Your task to perform on an android device: create a new album in the google photos Image 0: 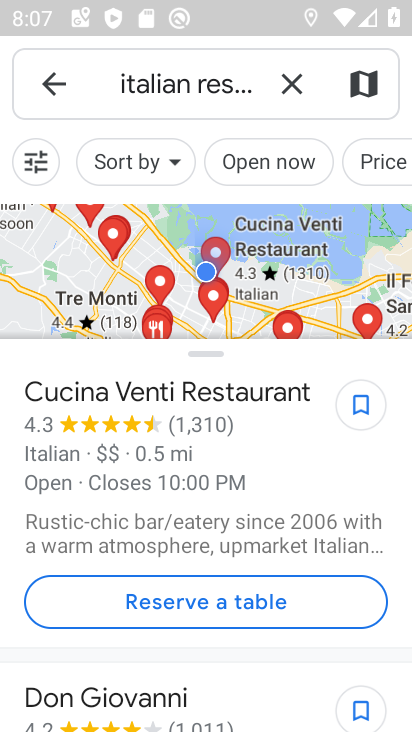
Step 0: press home button
Your task to perform on an android device: create a new album in the google photos Image 1: 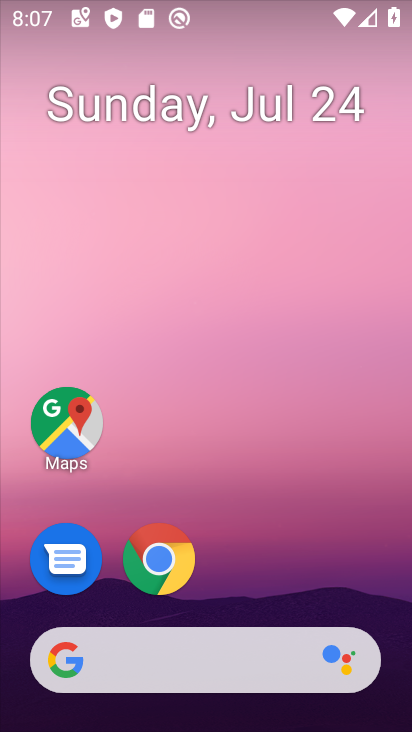
Step 1: drag from (357, 571) to (351, 127)
Your task to perform on an android device: create a new album in the google photos Image 2: 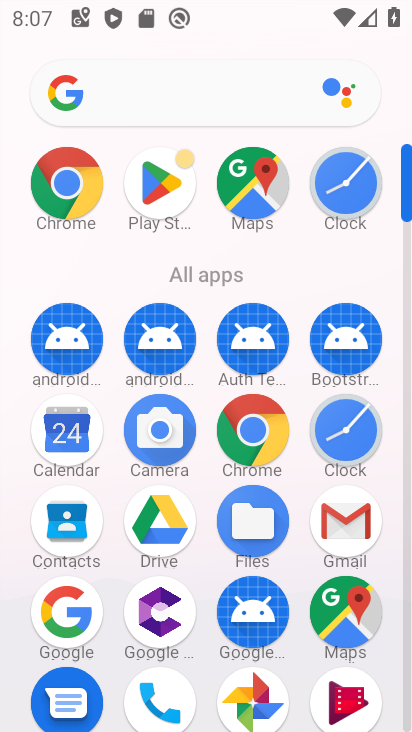
Step 2: drag from (403, 517) to (399, 415)
Your task to perform on an android device: create a new album in the google photos Image 3: 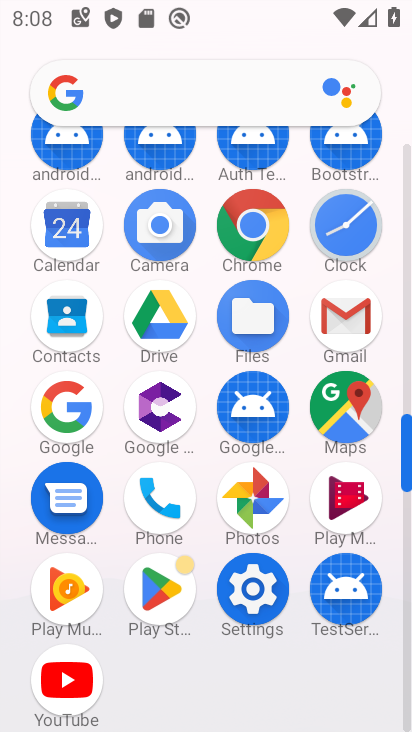
Step 3: click (251, 498)
Your task to perform on an android device: create a new album in the google photos Image 4: 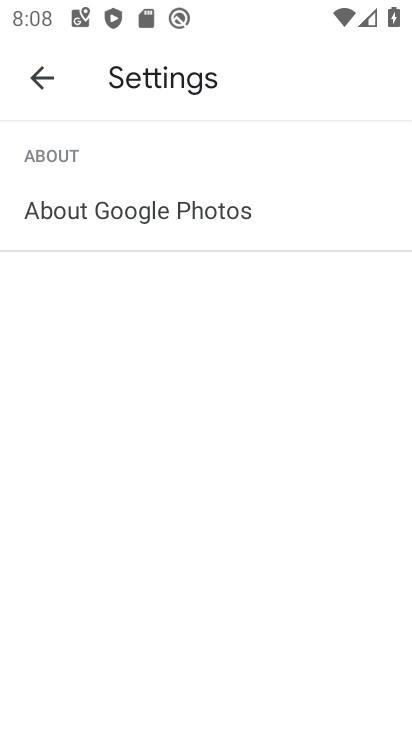
Step 4: press back button
Your task to perform on an android device: create a new album in the google photos Image 5: 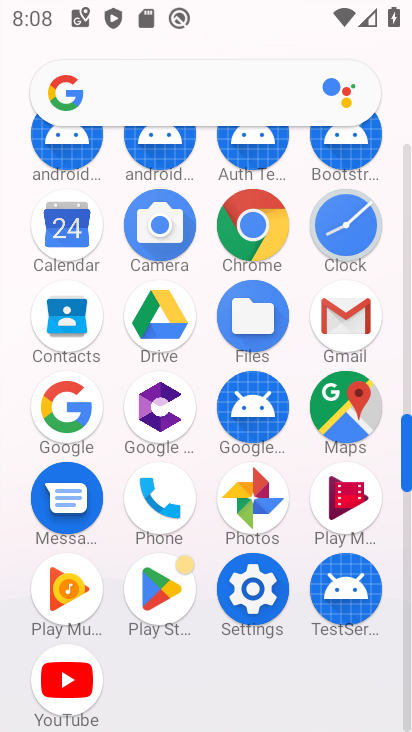
Step 5: click (257, 497)
Your task to perform on an android device: create a new album in the google photos Image 6: 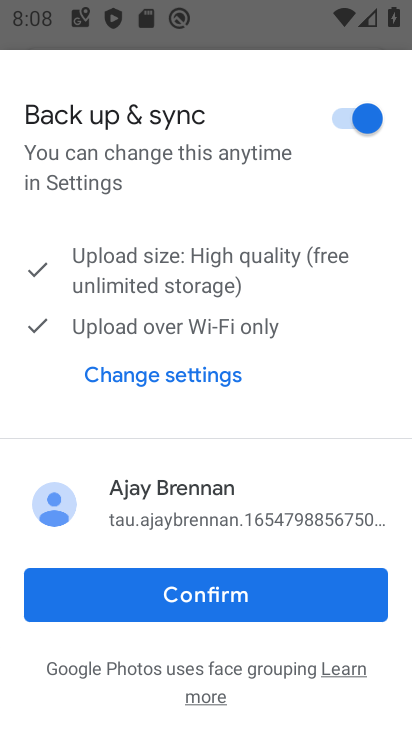
Step 6: click (261, 592)
Your task to perform on an android device: create a new album in the google photos Image 7: 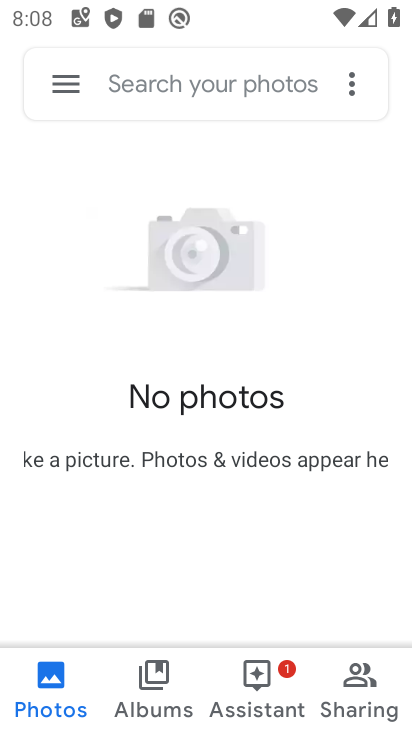
Step 7: click (354, 93)
Your task to perform on an android device: create a new album in the google photos Image 8: 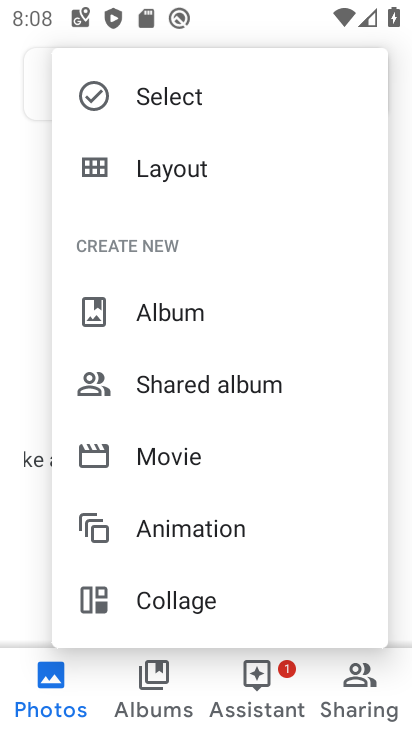
Step 8: click (185, 323)
Your task to perform on an android device: create a new album in the google photos Image 9: 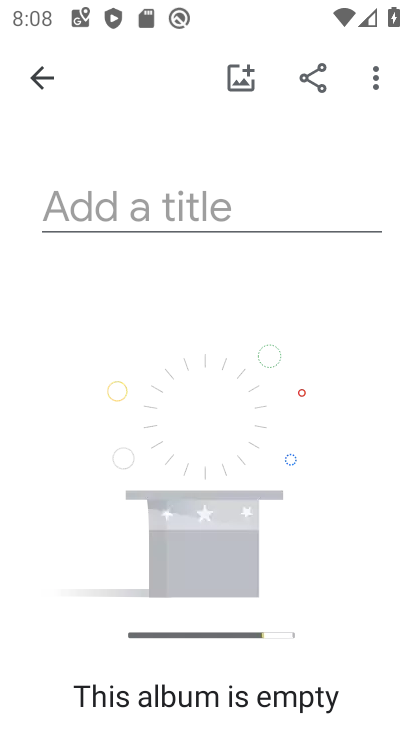
Step 9: click (248, 213)
Your task to perform on an android device: create a new album in the google photos Image 10: 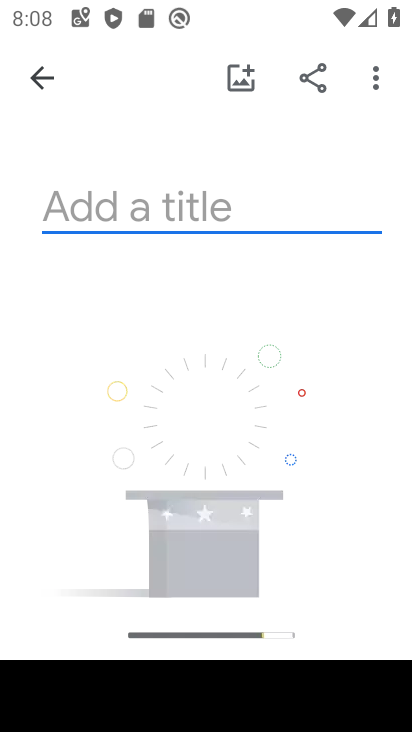
Step 10: type "fzv"
Your task to perform on an android device: create a new album in the google photos Image 11: 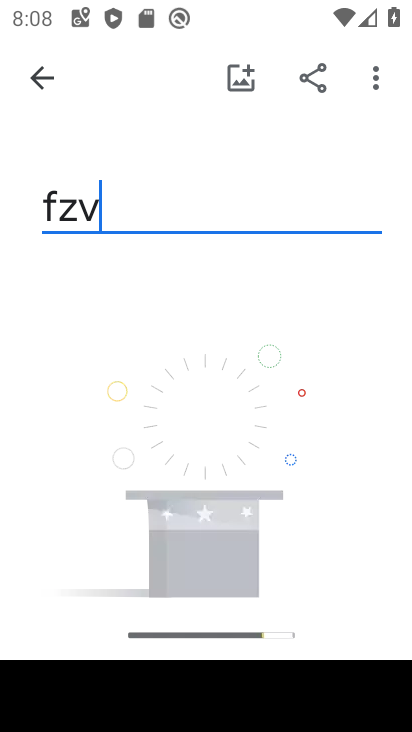
Step 11: drag from (341, 469) to (344, 253)
Your task to perform on an android device: create a new album in the google photos Image 12: 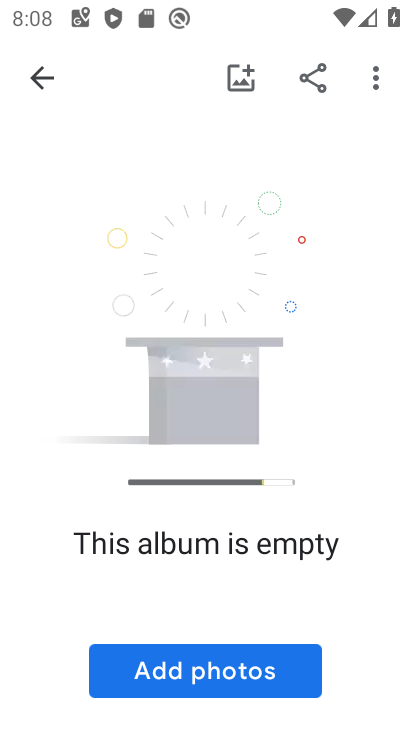
Step 12: click (211, 676)
Your task to perform on an android device: create a new album in the google photos Image 13: 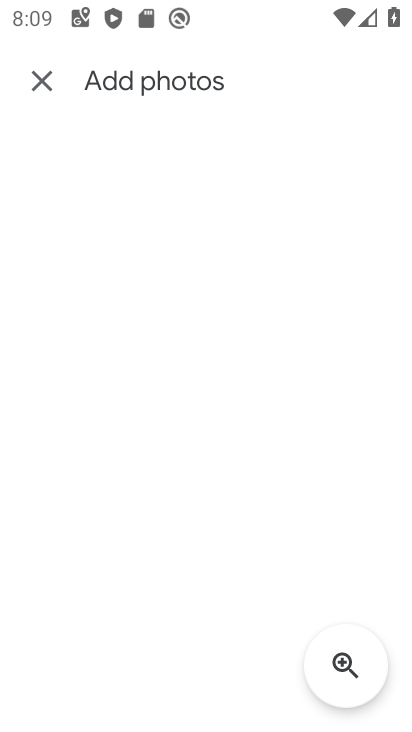
Step 13: task complete